Your task to perform on an android device: Open Reddit.com Image 0: 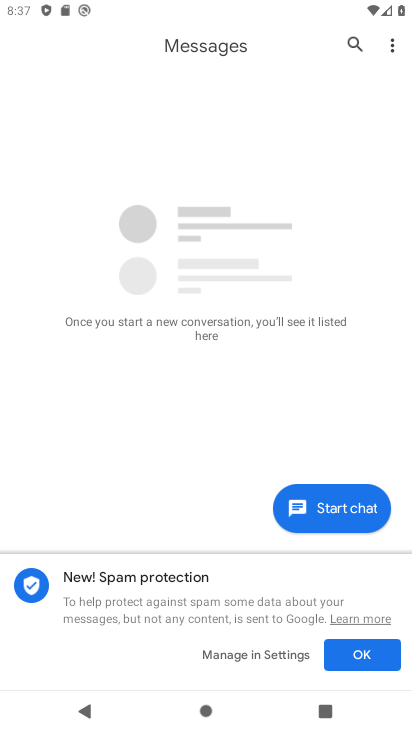
Step 0: press home button
Your task to perform on an android device: Open Reddit.com Image 1: 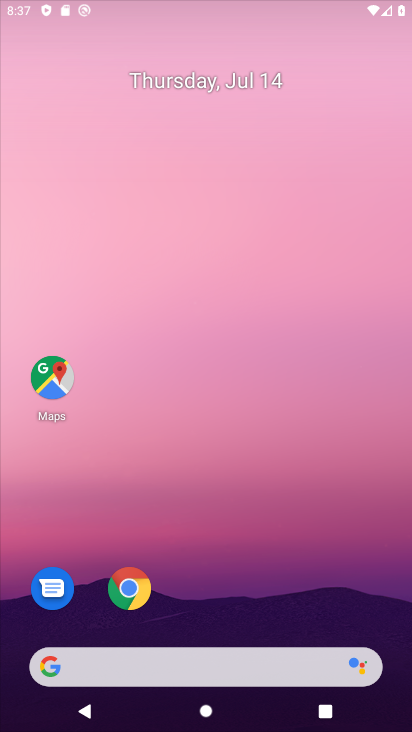
Step 1: drag from (211, 614) to (203, 138)
Your task to perform on an android device: Open Reddit.com Image 2: 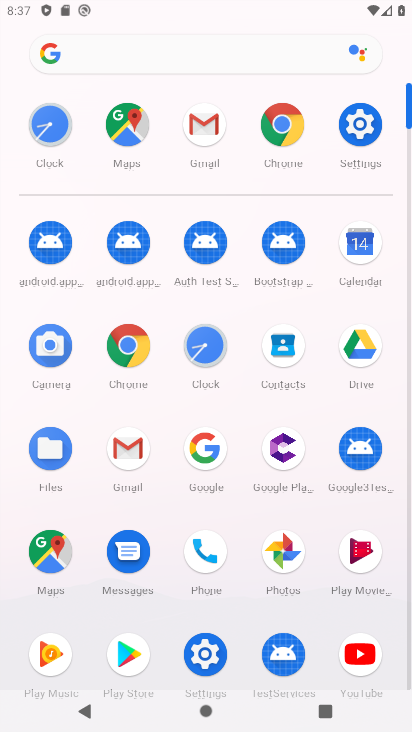
Step 2: click (203, 448)
Your task to perform on an android device: Open Reddit.com Image 3: 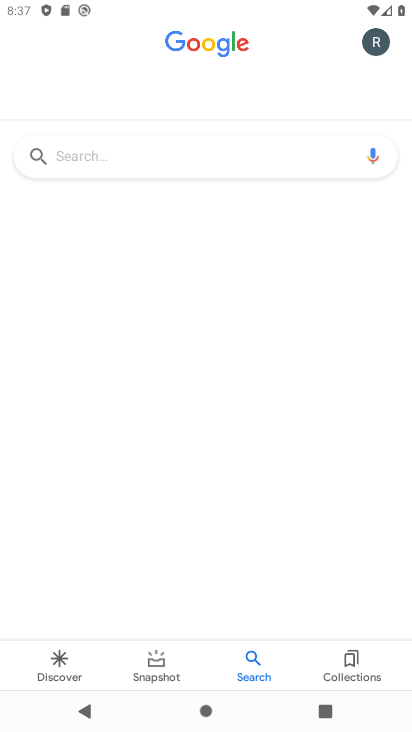
Step 3: click (142, 147)
Your task to perform on an android device: Open Reddit.com Image 4: 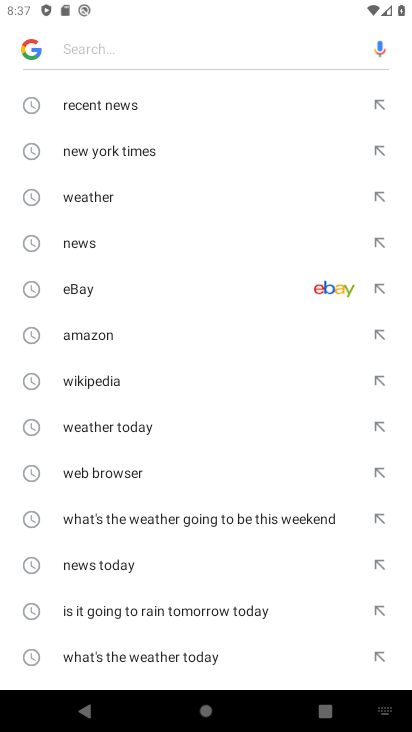
Step 4: drag from (154, 585) to (196, 271)
Your task to perform on an android device: Open Reddit.com Image 5: 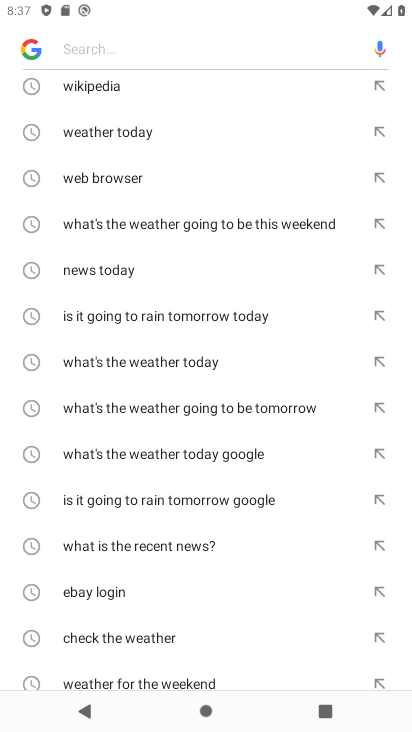
Step 5: type "reddit.com"
Your task to perform on an android device: Open Reddit.com Image 6: 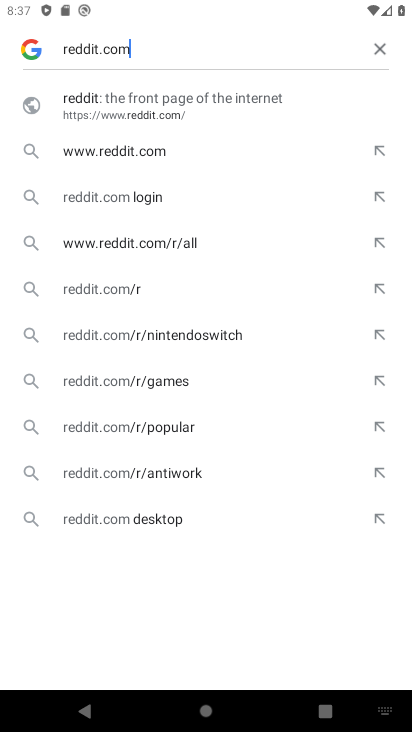
Step 6: click (176, 151)
Your task to perform on an android device: Open Reddit.com Image 7: 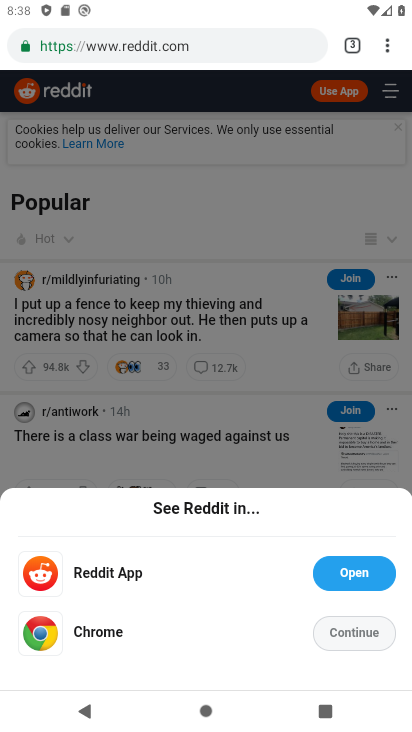
Step 7: task complete